Your task to perform on an android device: Open Android settings Image 0: 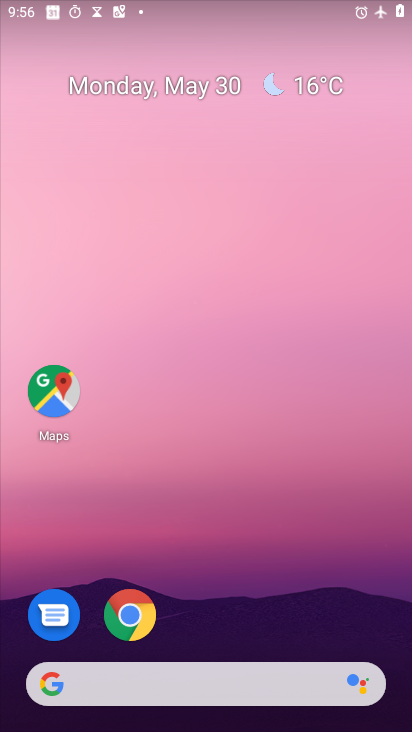
Step 0: drag from (243, 587) to (138, 1)
Your task to perform on an android device: Open Android settings Image 1: 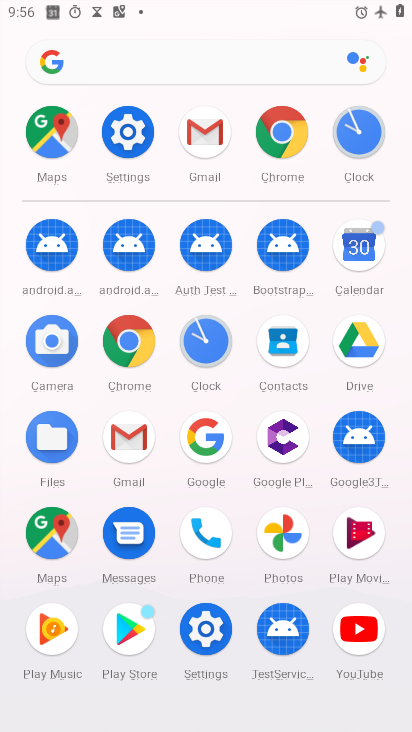
Step 1: click (140, 140)
Your task to perform on an android device: Open Android settings Image 2: 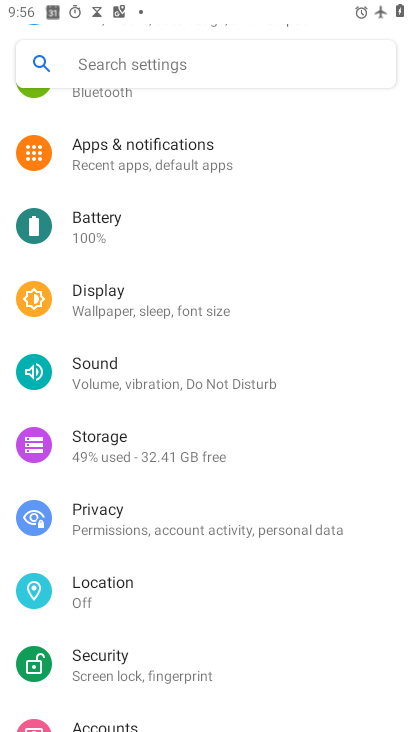
Step 2: task complete